Your task to perform on an android device: Clear all items from cart on walmart.com. Search for energizer triple a on walmart.com, select the first entry, and add it to the cart. Image 0: 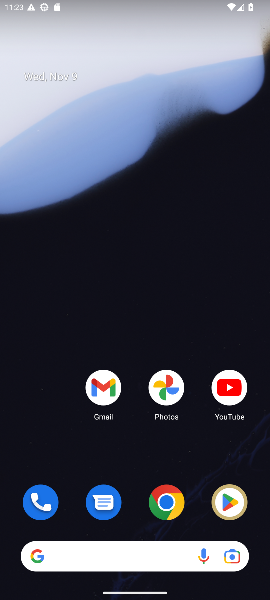
Step 0: drag from (134, 485) to (132, 15)
Your task to perform on an android device: Clear all items from cart on walmart.com. Search for energizer triple a on walmart.com, select the first entry, and add it to the cart. Image 1: 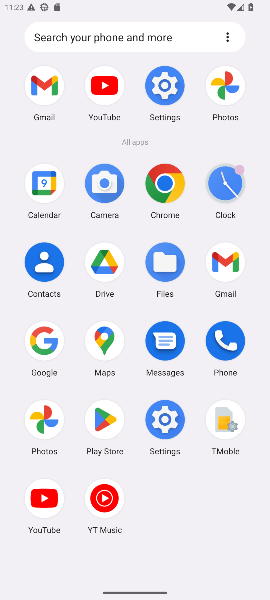
Step 1: click (160, 188)
Your task to perform on an android device: Clear all items from cart on walmart.com. Search for energizer triple a on walmart.com, select the first entry, and add it to the cart. Image 2: 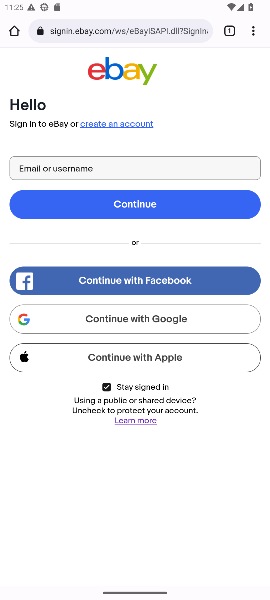
Step 2: click (129, 32)
Your task to perform on an android device: Clear all items from cart on walmart.com. Search for energizer triple a on walmart.com, select the first entry, and add it to the cart. Image 3: 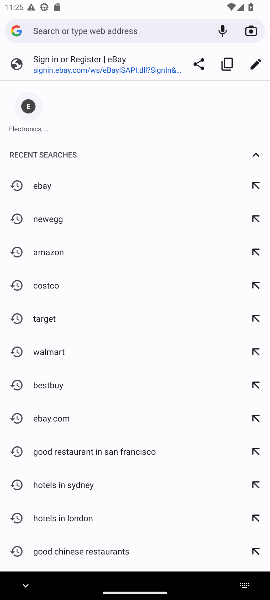
Step 3: type "walmart.comm"
Your task to perform on an android device: Clear all items from cart on walmart.com. Search for energizer triple a on walmart.com, select the first entry, and add it to the cart. Image 4: 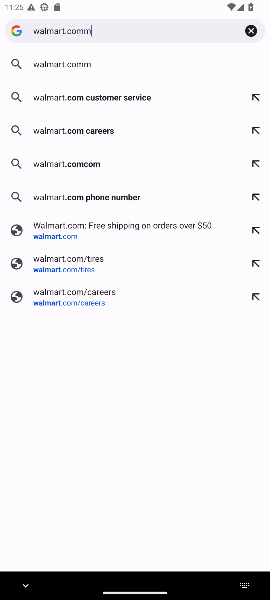
Step 4: click (252, 29)
Your task to perform on an android device: Clear all items from cart on walmart.com. Search for energizer triple a on walmart.com, select the first entry, and add it to the cart. Image 5: 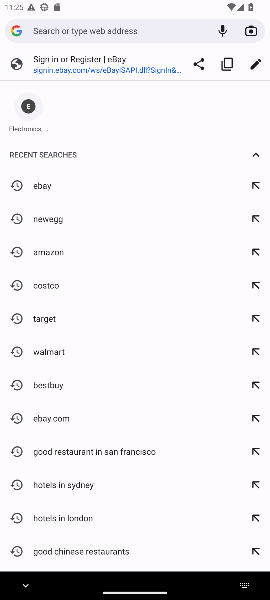
Step 5: type "walmart.com"
Your task to perform on an android device: Clear all items from cart on walmart.com. Search for energizer triple a on walmart.com, select the first entry, and add it to the cart. Image 6: 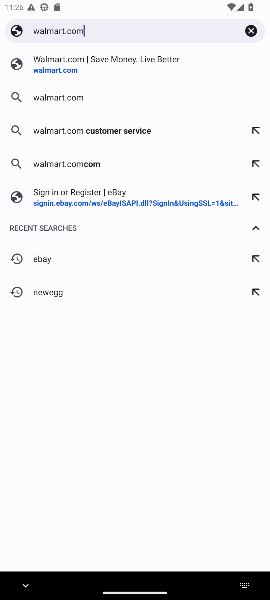
Step 6: press enter
Your task to perform on an android device: Clear all items from cart on walmart.com. Search for energizer triple a on walmart.com, select the first entry, and add it to the cart. Image 7: 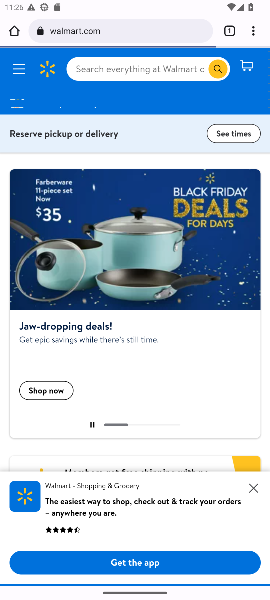
Step 7: click (245, 70)
Your task to perform on an android device: Clear all items from cart on walmart.com. Search for energizer triple a on walmart.com, select the first entry, and add it to the cart. Image 8: 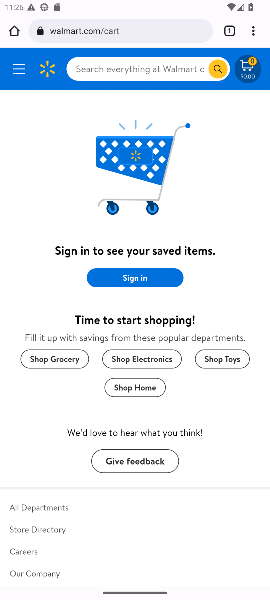
Step 8: click (159, 67)
Your task to perform on an android device: Clear all items from cart on walmart.com. Search for energizer triple a on walmart.com, select the first entry, and add it to the cart. Image 9: 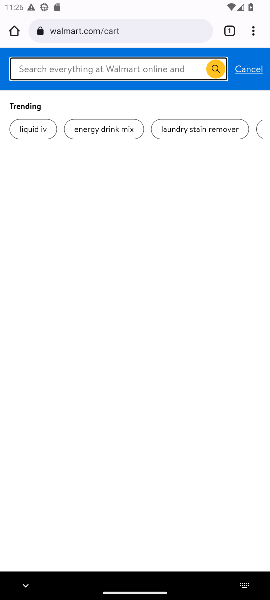
Step 9: type "energizer triple a"
Your task to perform on an android device: Clear all items from cart on walmart.com. Search for energizer triple a on walmart.com, select the first entry, and add it to the cart. Image 10: 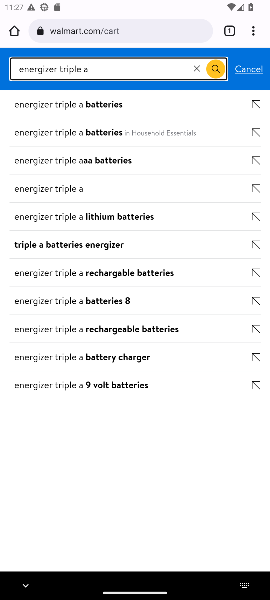
Step 10: press enter
Your task to perform on an android device: Clear all items from cart on walmart.com. Search for energizer triple a on walmart.com, select the first entry, and add it to the cart. Image 11: 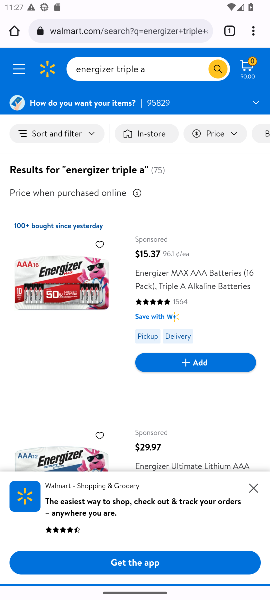
Step 11: drag from (195, 457) to (196, 118)
Your task to perform on an android device: Clear all items from cart on walmart.com. Search for energizer triple a on walmart.com, select the first entry, and add it to the cart. Image 12: 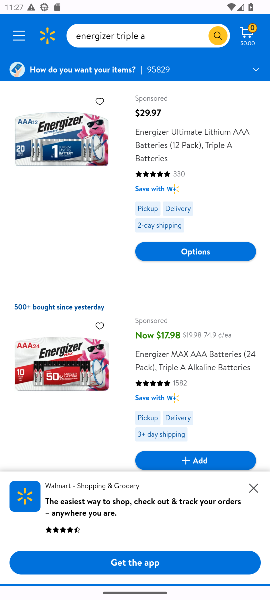
Step 12: drag from (200, 411) to (176, 111)
Your task to perform on an android device: Clear all items from cart on walmart.com. Search for energizer triple a on walmart.com, select the first entry, and add it to the cart. Image 13: 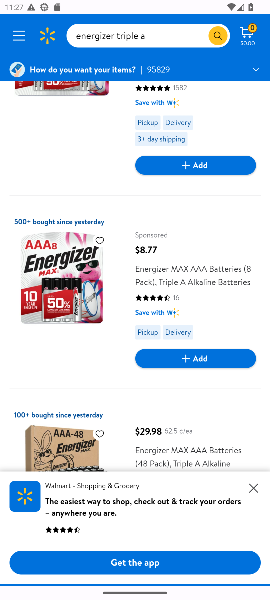
Step 13: drag from (154, 438) to (138, 216)
Your task to perform on an android device: Clear all items from cart on walmart.com. Search for energizer triple a on walmart.com, select the first entry, and add it to the cart. Image 14: 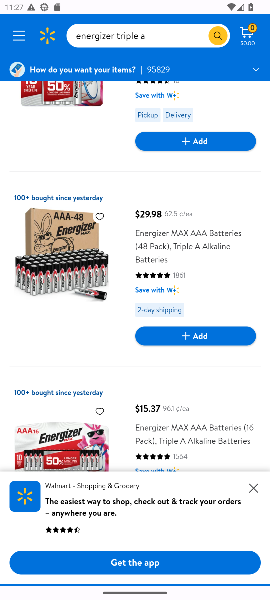
Step 14: click (190, 335)
Your task to perform on an android device: Clear all items from cart on walmart.com. Search for energizer triple a on walmart.com, select the first entry, and add it to the cart. Image 15: 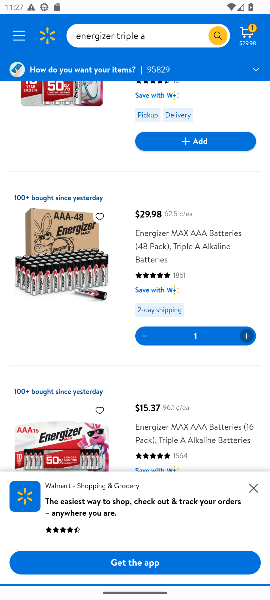
Step 15: click (250, 39)
Your task to perform on an android device: Clear all items from cart on walmart.com. Search for energizer triple a on walmart.com, select the first entry, and add it to the cart. Image 16: 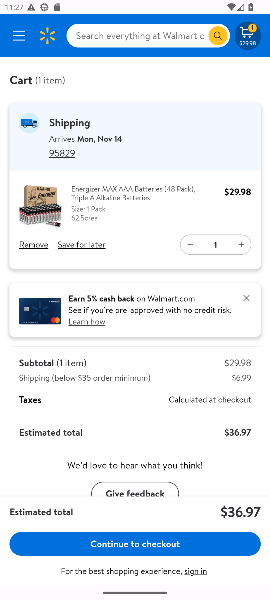
Step 16: task complete